Your task to perform on an android device: open app "Viber Messenger" (install if not already installed) and enter user name: "blameless@icloud.com" and password: "Yoknapatawpha" Image 0: 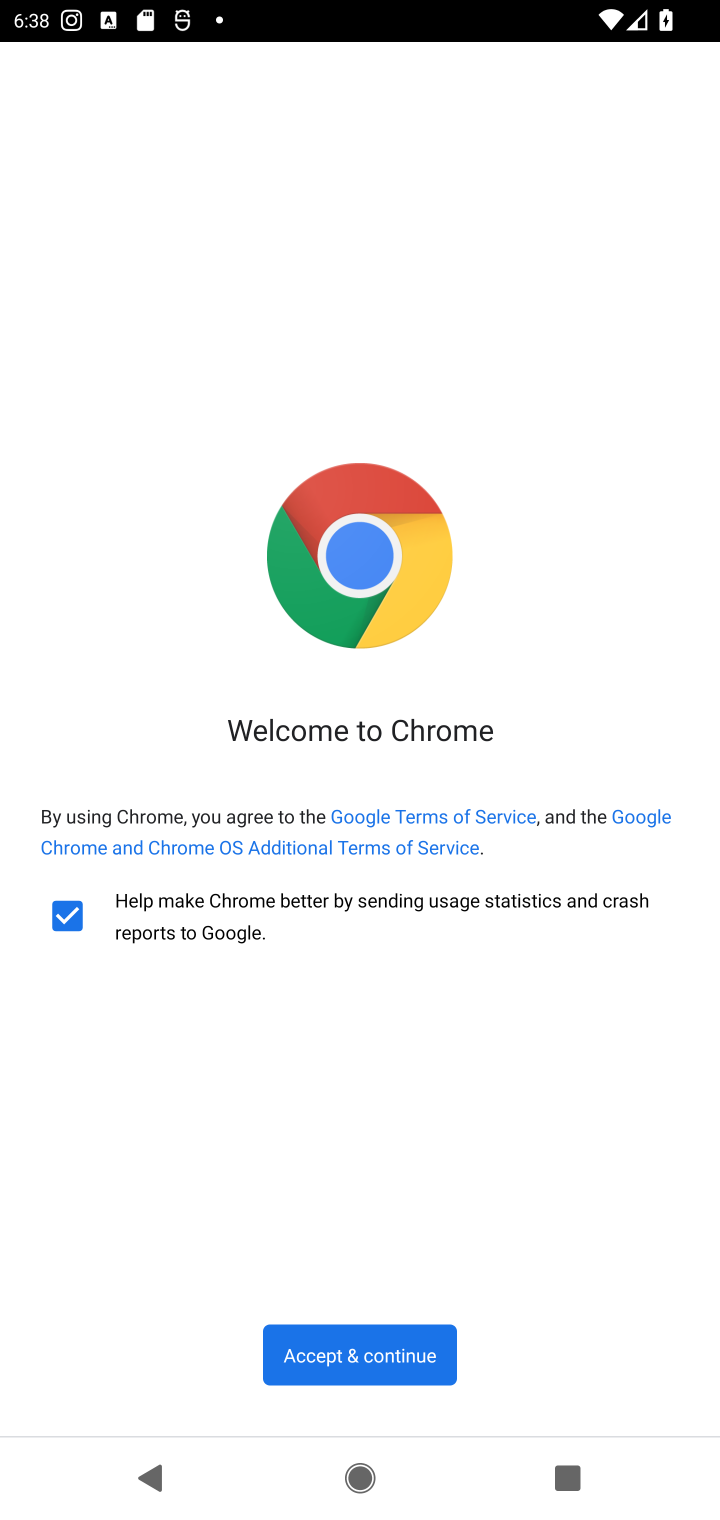
Step 0: press home button
Your task to perform on an android device: open app "Viber Messenger" (install if not already installed) and enter user name: "blameless@icloud.com" and password: "Yoknapatawpha" Image 1: 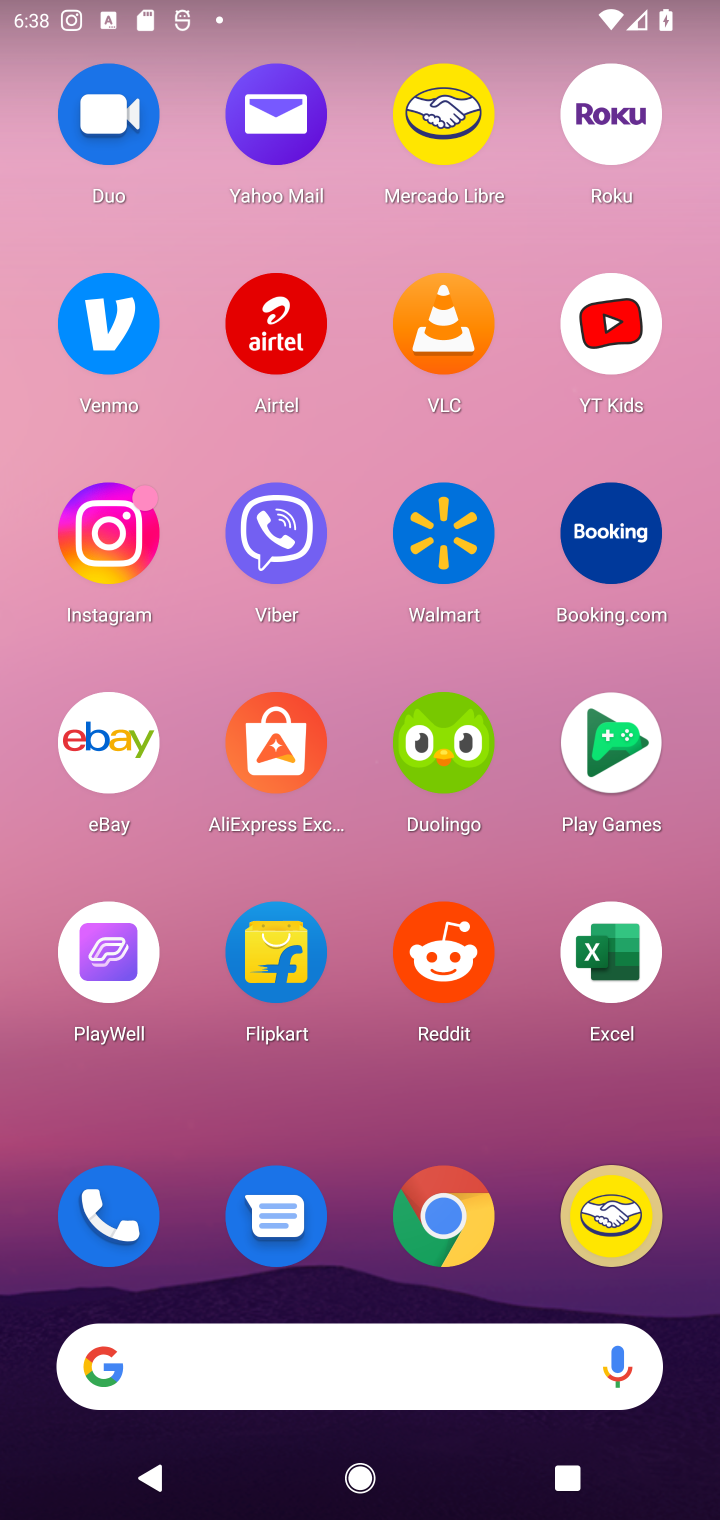
Step 1: drag from (352, 1103) to (377, 276)
Your task to perform on an android device: open app "Viber Messenger" (install if not already installed) and enter user name: "blameless@icloud.com" and password: "Yoknapatawpha" Image 2: 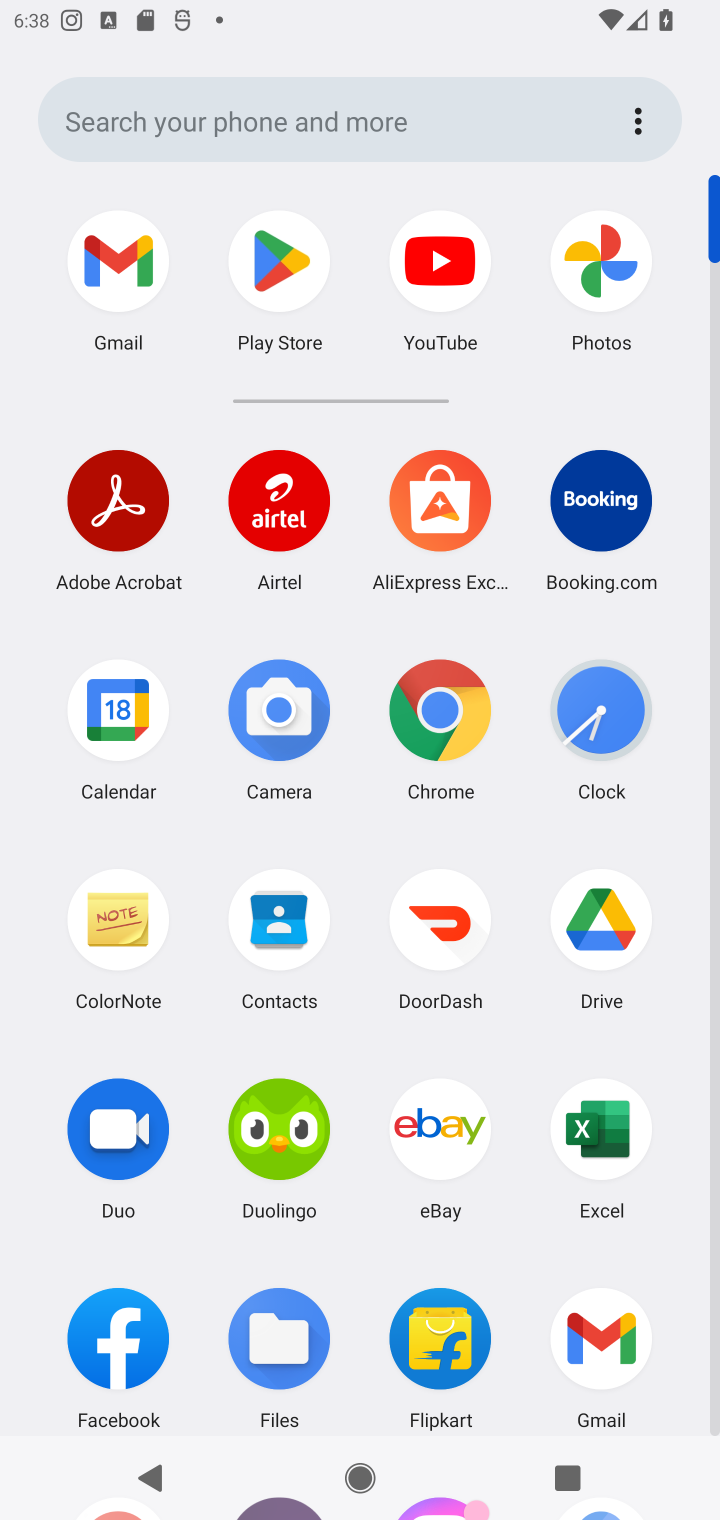
Step 2: click (290, 289)
Your task to perform on an android device: open app "Viber Messenger" (install if not already installed) and enter user name: "blameless@icloud.com" and password: "Yoknapatawpha" Image 3: 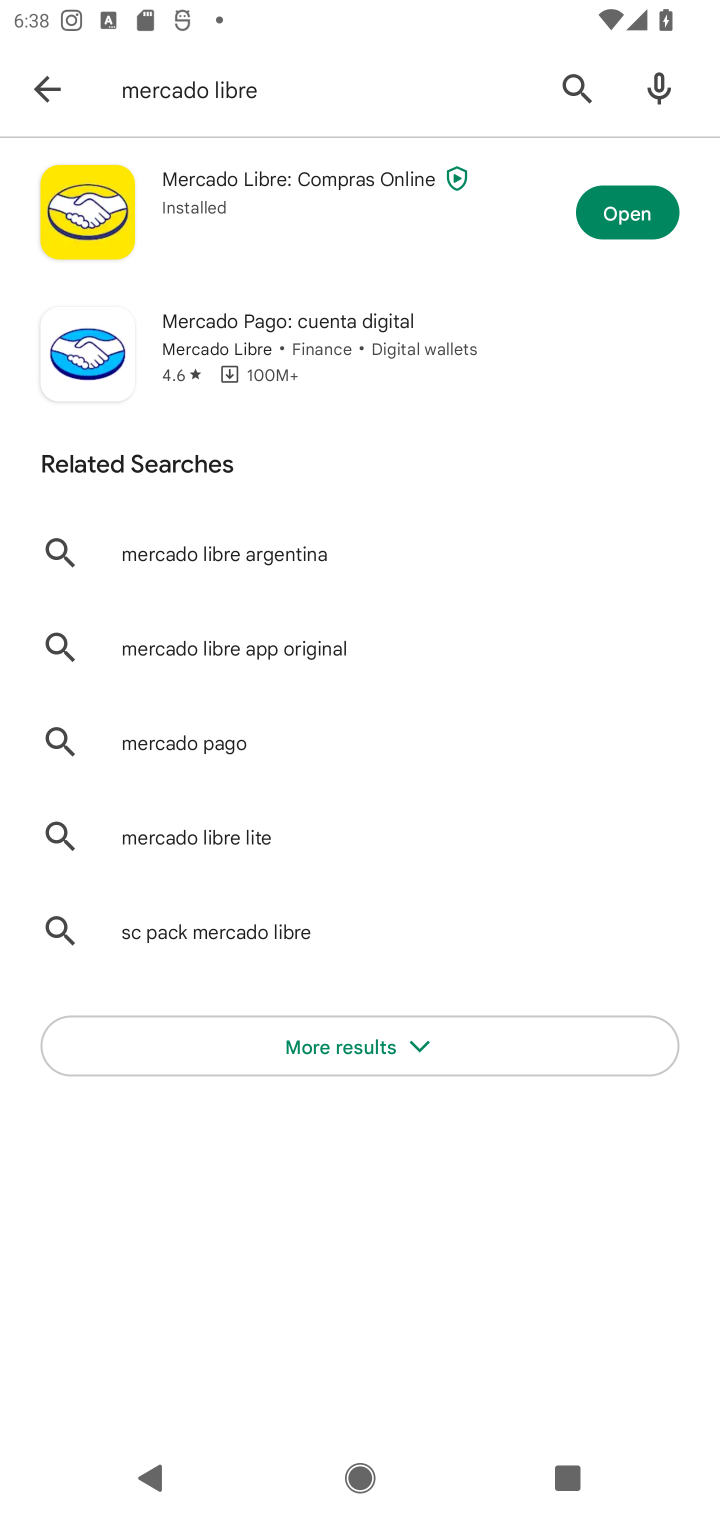
Step 3: click (596, 205)
Your task to perform on an android device: open app "Viber Messenger" (install if not already installed) and enter user name: "blameless@icloud.com" and password: "Yoknapatawpha" Image 4: 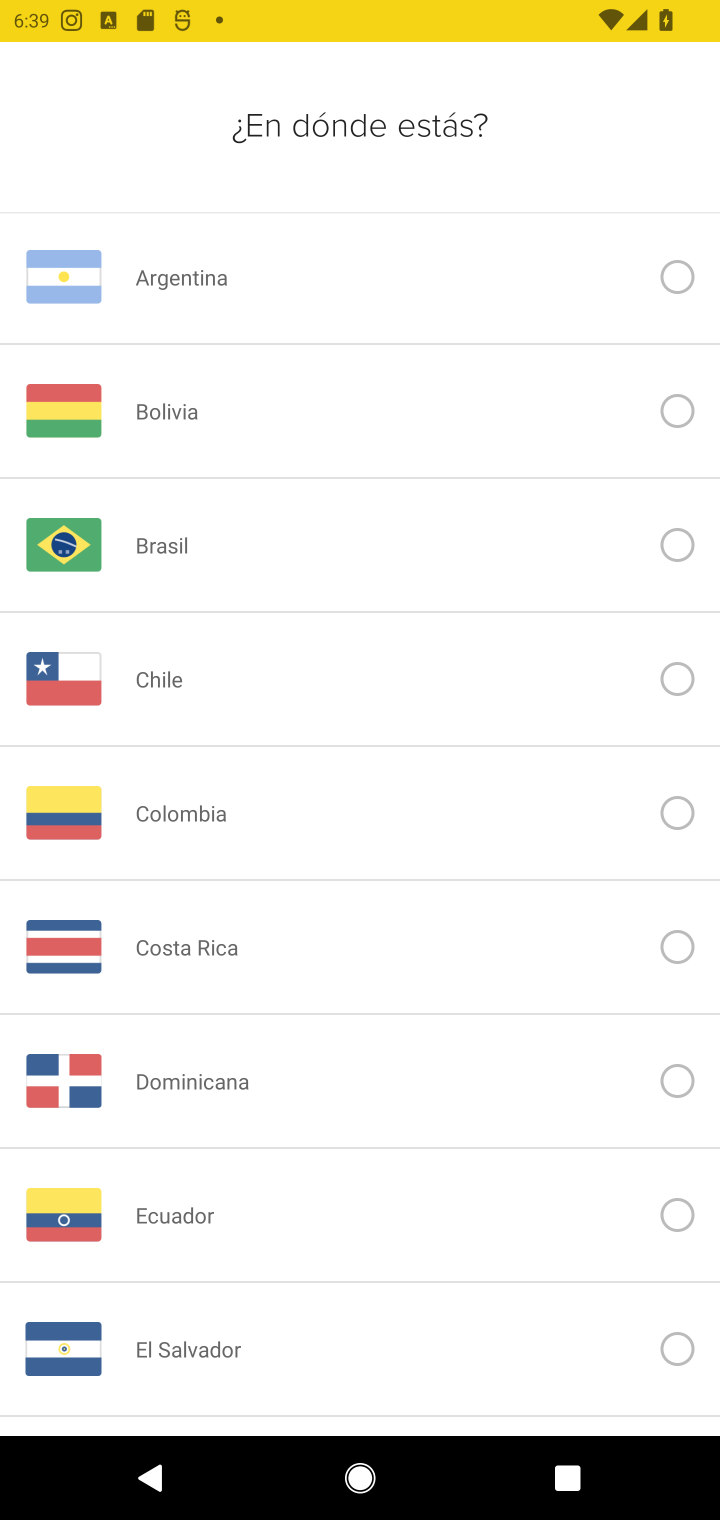
Step 4: press home button
Your task to perform on an android device: open app "Viber Messenger" (install if not already installed) and enter user name: "blameless@icloud.com" and password: "Yoknapatawpha" Image 5: 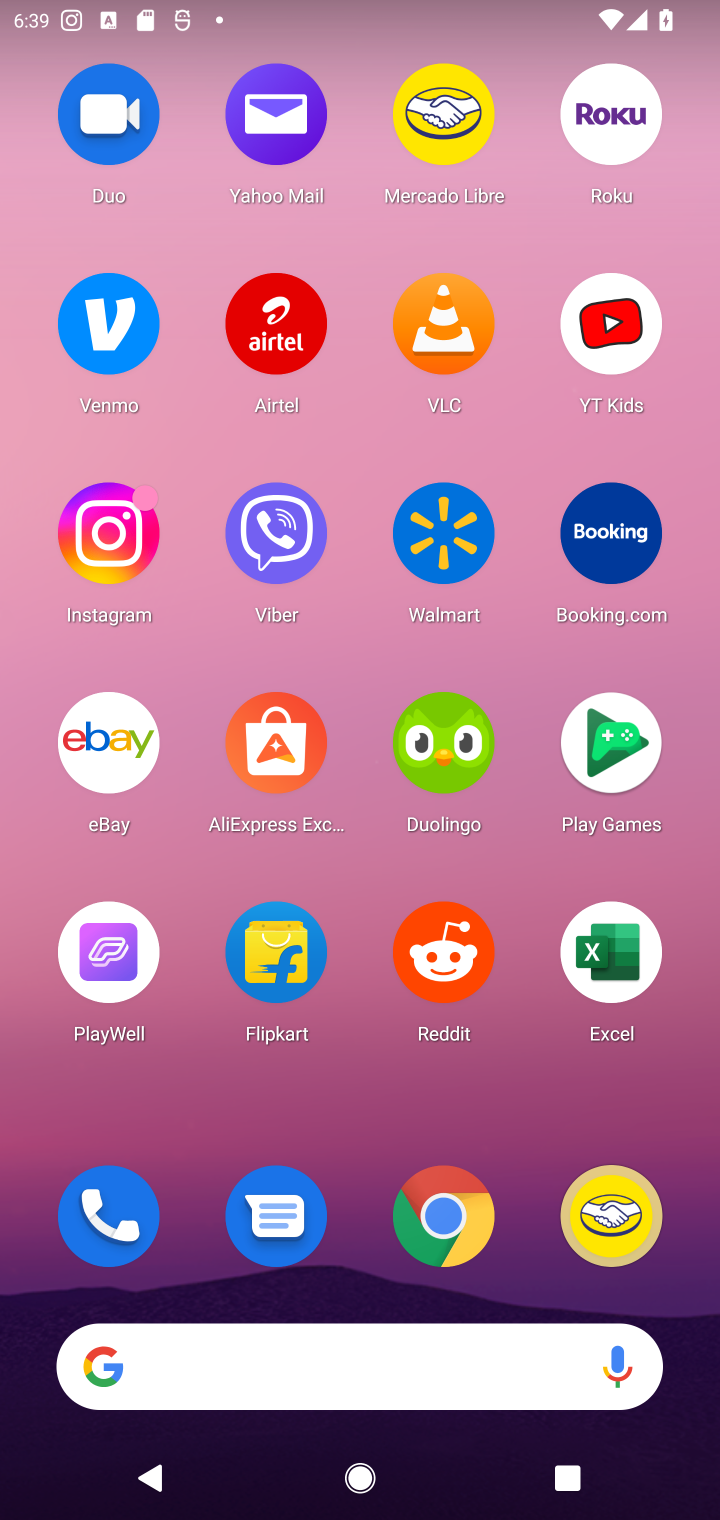
Step 5: drag from (396, 947) to (375, 259)
Your task to perform on an android device: open app "Viber Messenger" (install if not already installed) and enter user name: "blameless@icloud.com" and password: "Yoknapatawpha" Image 6: 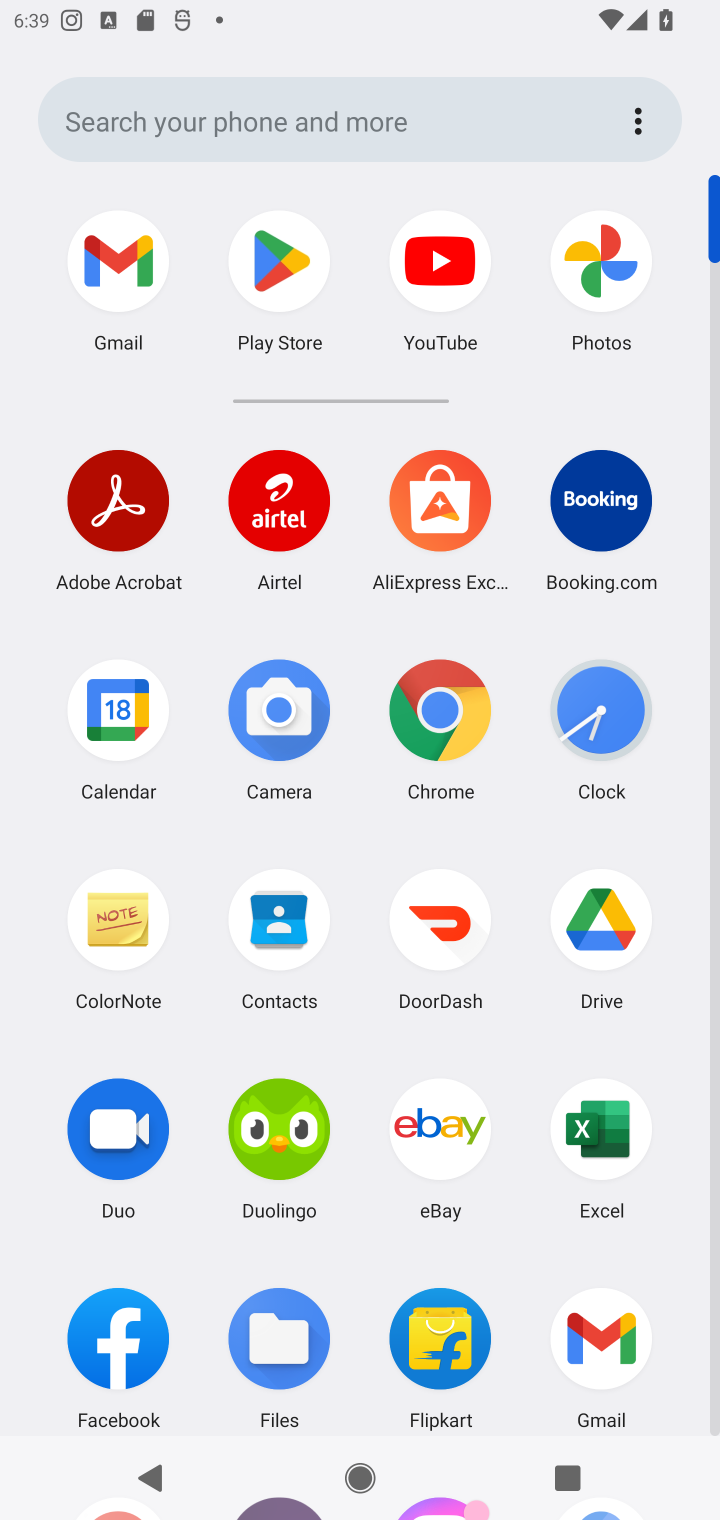
Step 6: click (285, 244)
Your task to perform on an android device: open app "Viber Messenger" (install if not already installed) and enter user name: "blameless@icloud.com" and password: "Yoknapatawpha" Image 7: 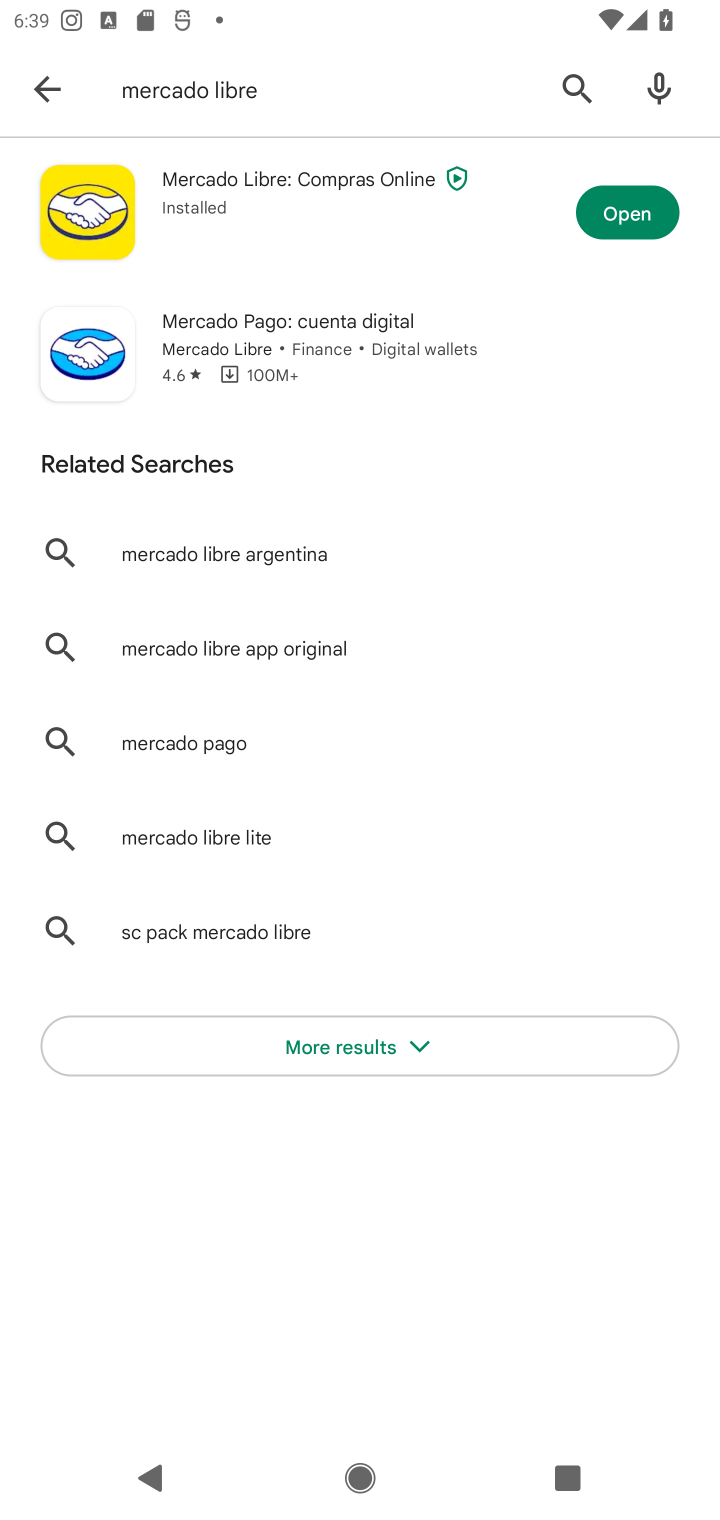
Step 7: click (568, 84)
Your task to perform on an android device: open app "Viber Messenger" (install if not already installed) and enter user name: "blameless@icloud.com" and password: "Yoknapatawpha" Image 8: 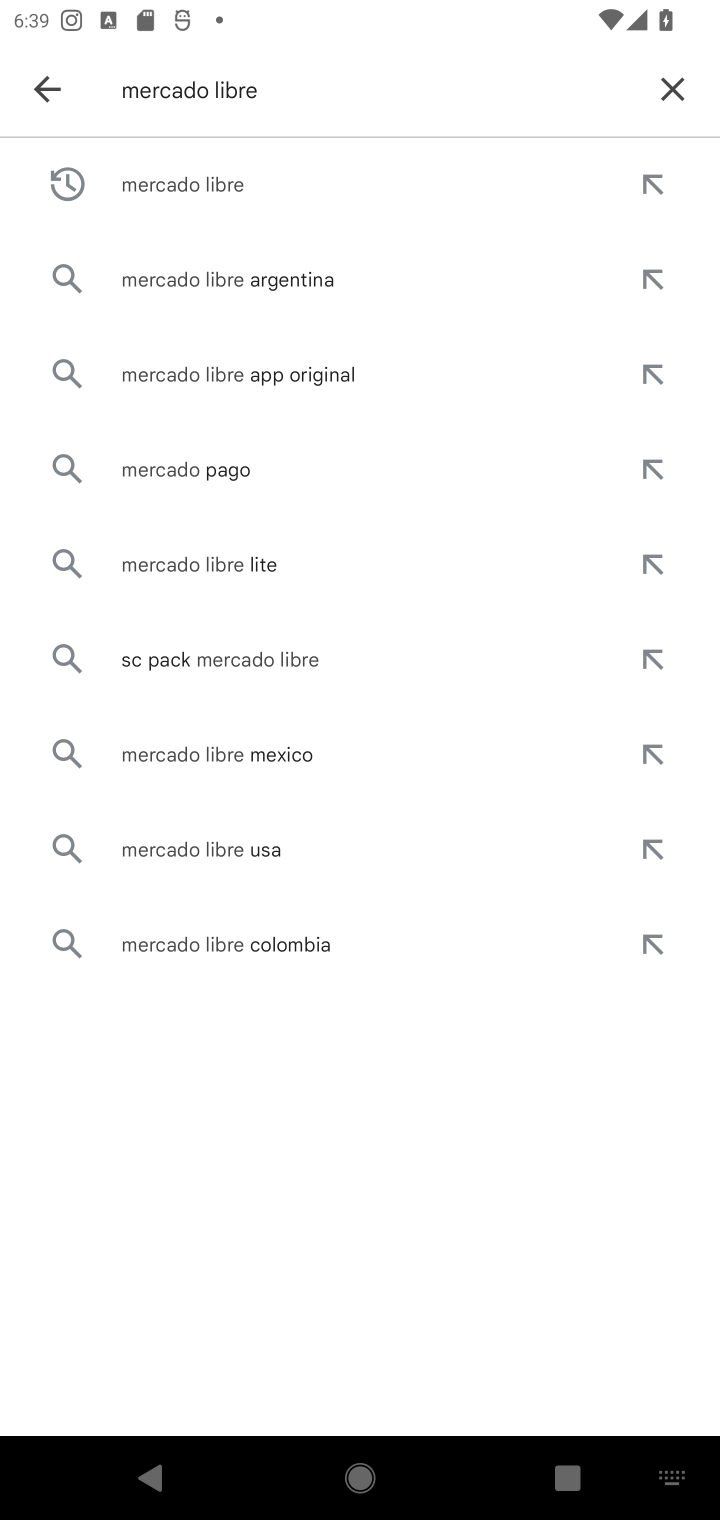
Step 8: type "Viber Messenger"
Your task to perform on an android device: open app "Viber Messenger" (install if not already installed) and enter user name: "blameless@icloud.com" and password: "Yoknapatawpha" Image 9: 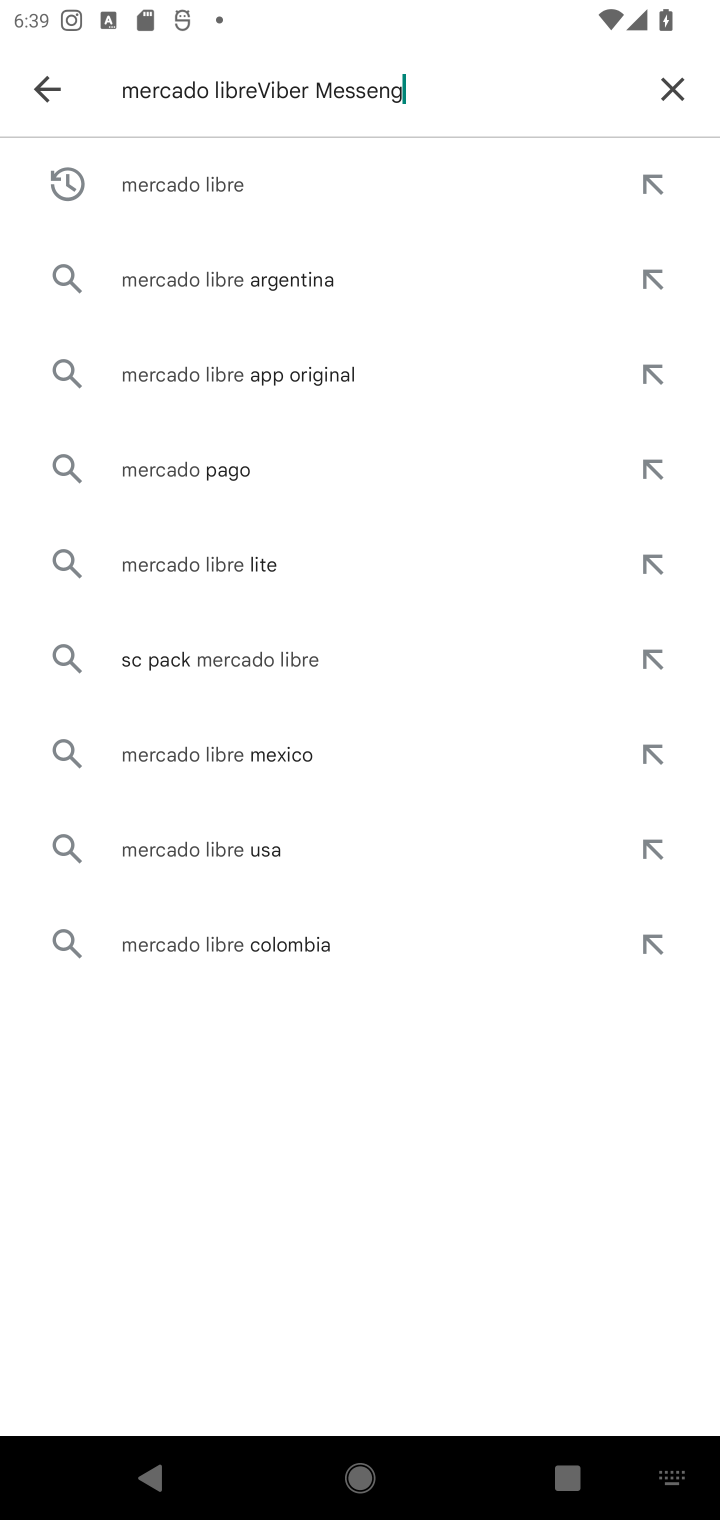
Step 9: type ""
Your task to perform on an android device: open app "Viber Messenger" (install if not already installed) and enter user name: "blameless@icloud.com" and password: "Yoknapatawpha" Image 10: 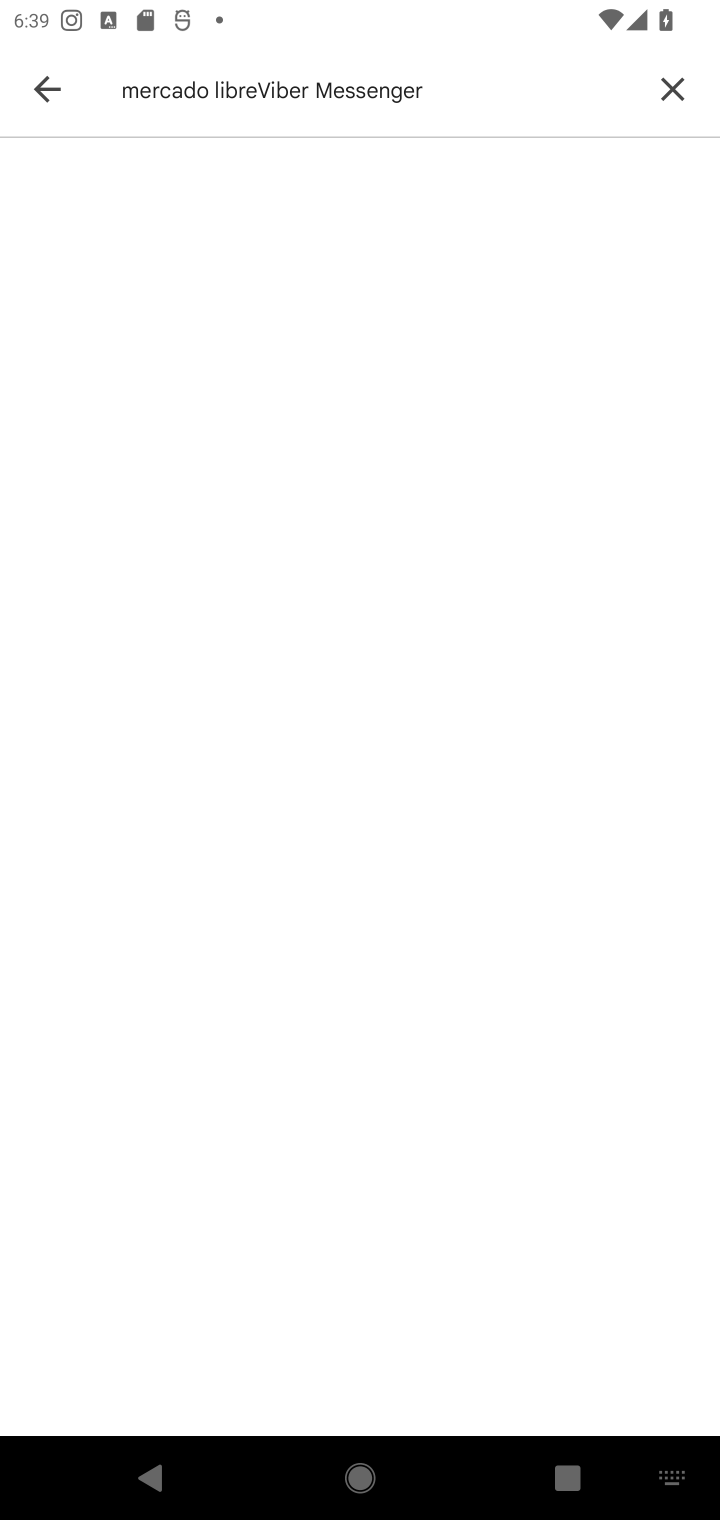
Step 10: click (678, 88)
Your task to perform on an android device: open app "Viber Messenger" (install if not already installed) and enter user name: "blameless@icloud.com" and password: "Yoknapatawpha" Image 11: 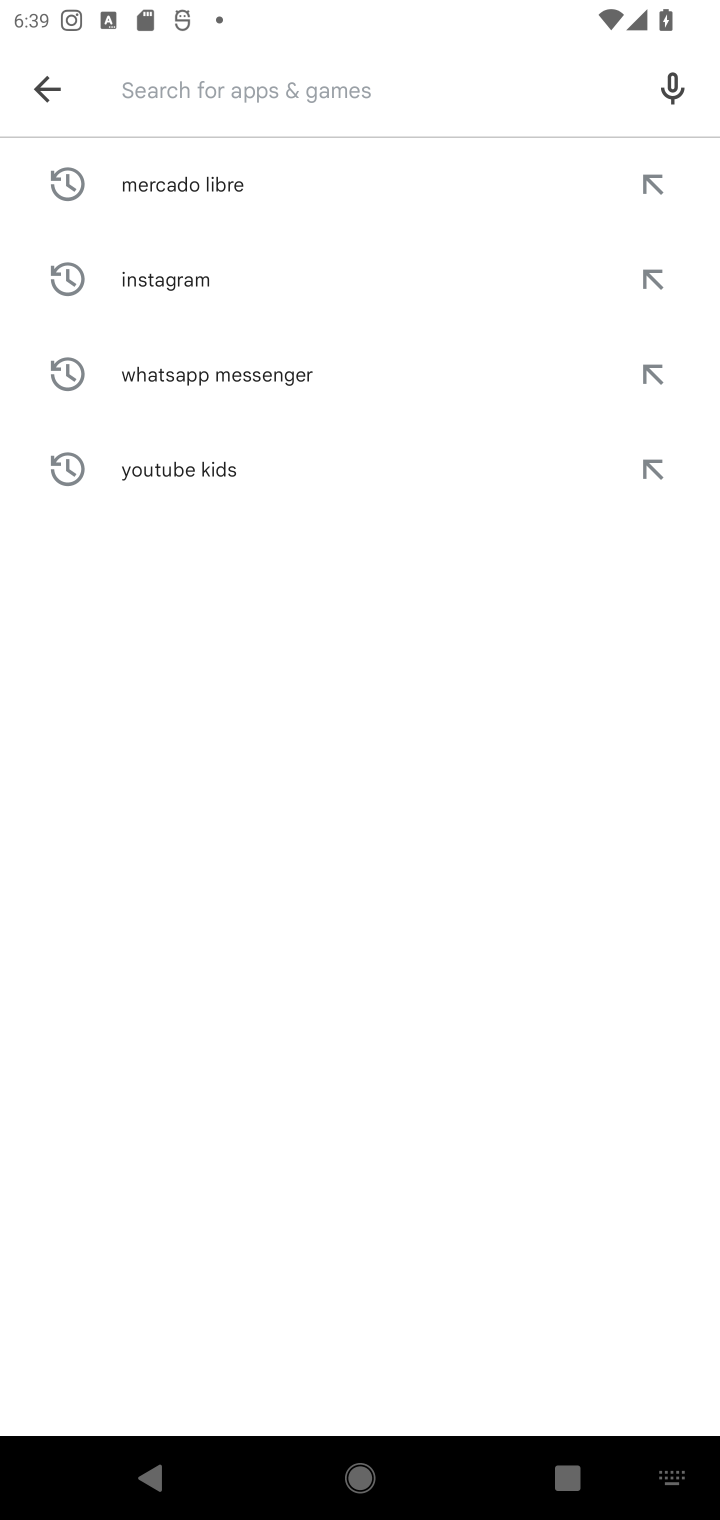
Step 11: type "Viber Messenger"
Your task to perform on an android device: open app "Viber Messenger" (install if not already installed) and enter user name: "blameless@icloud.com" and password: "Yoknapatawpha" Image 12: 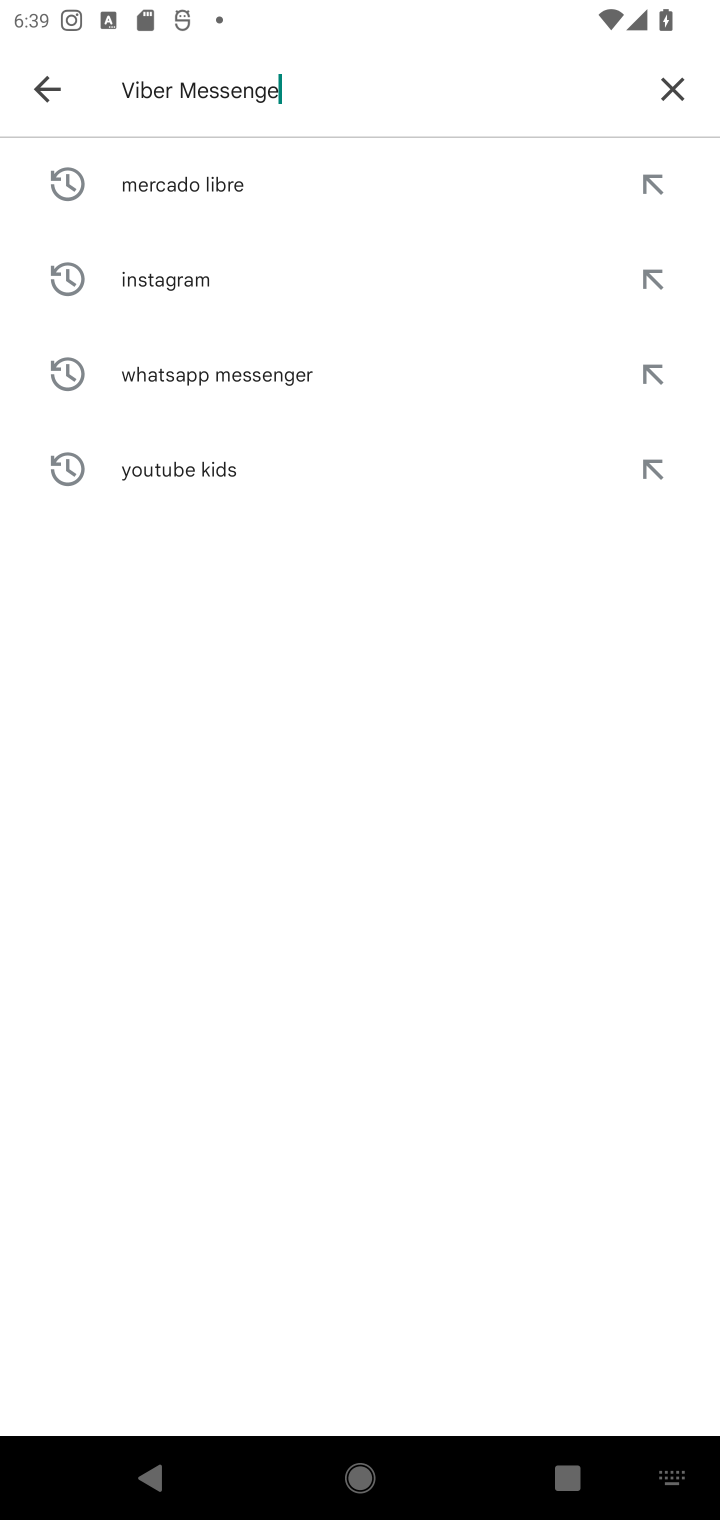
Step 12: type ""
Your task to perform on an android device: open app "Viber Messenger" (install if not already installed) and enter user name: "blameless@icloud.com" and password: "Yoknapatawpha" Image 13: 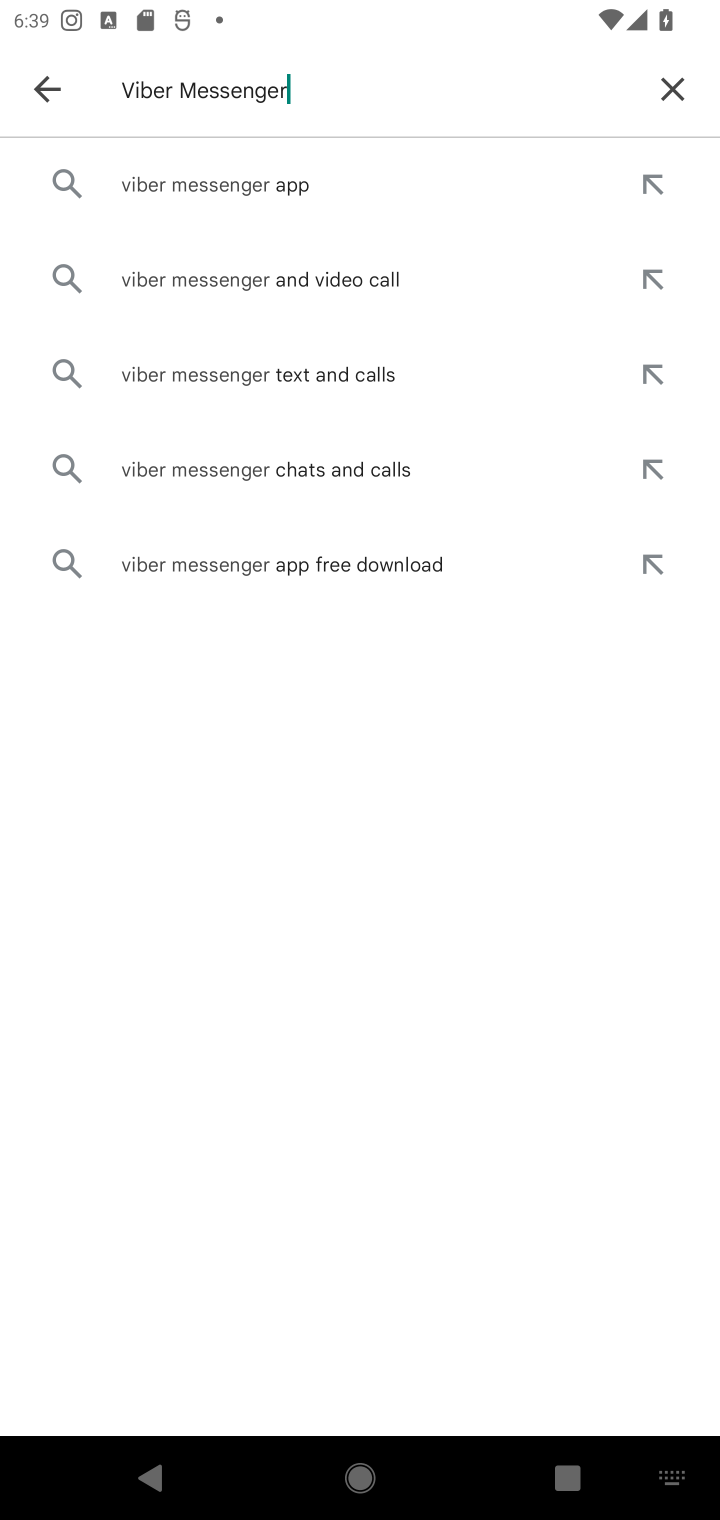
Step 13: click (266, 191)
Your task to perform on an android device: open app "Viber Messenger" (install if not already installed) and enter user name: "blameless@icloud.com" and password: "Yoknapatawpha" Image 14: 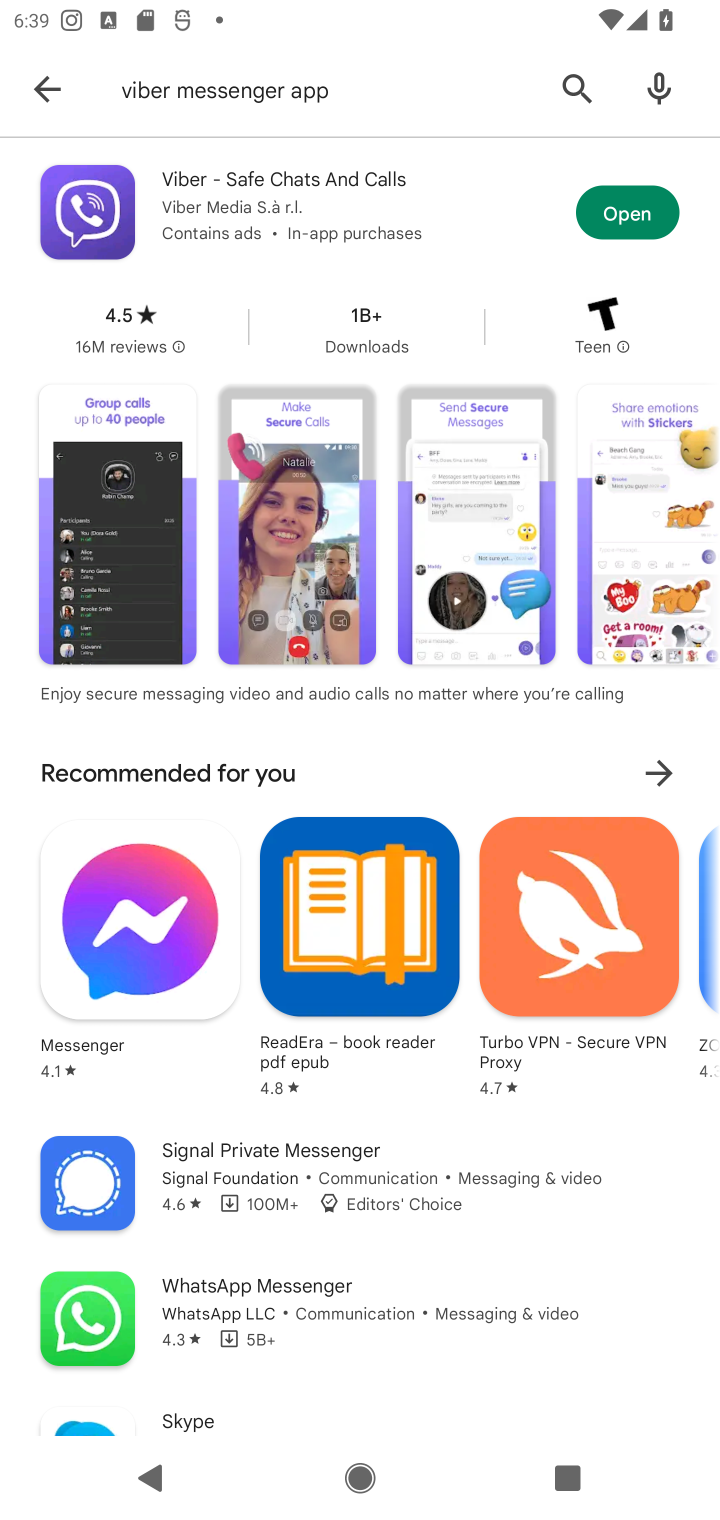
Step 14: click (616, 225)
Your task to perform on an android device: open app "Viber Messenger" (install if not already installed) and enter user name: "blameless@icloud.com" and password: "Yoknapatawpha" Image 15: 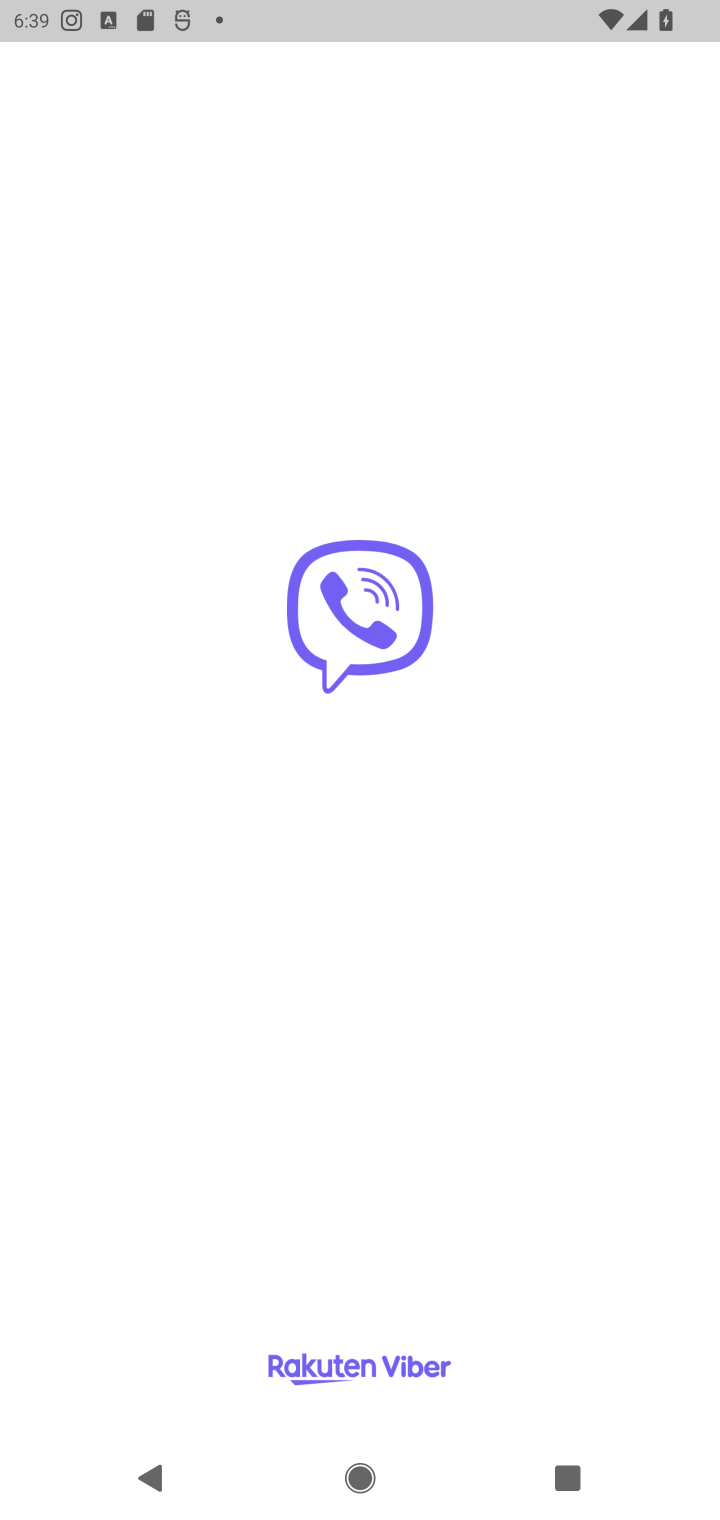
Step 15: task complete